Your task to perform on an android device: clear all cookies in the chrome app Image 0: 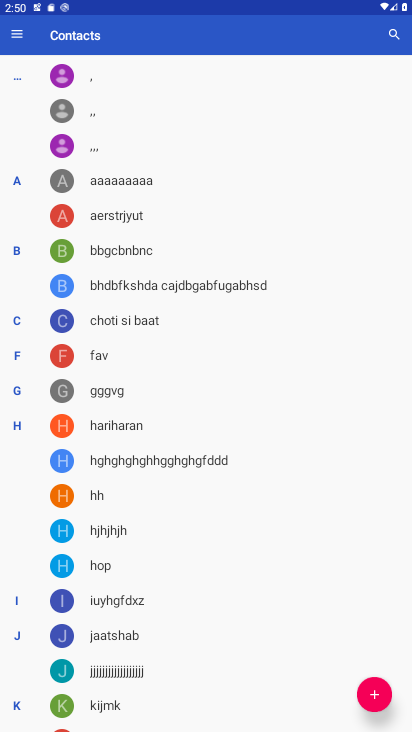
Step 0: press home button
Your task to perform on an android device: clear all cookies in the chrome app Image 1: 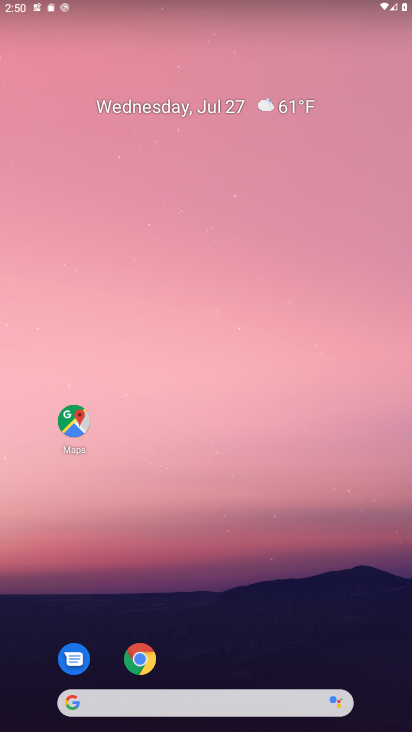
Step 1: drag from (194, 700) to (177, 153)
Your task to perform on an android device: clear all cookies in the chrome app Image 2: 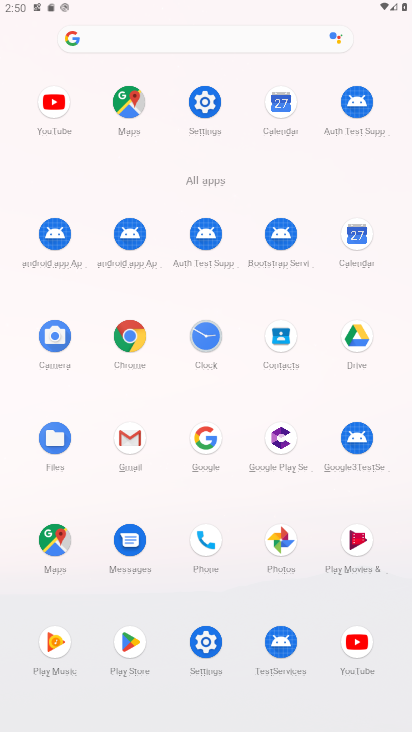
Step 2: click (133, 331)
Your task to perform on an android device: clear all cookies in the chrome app Image 3: 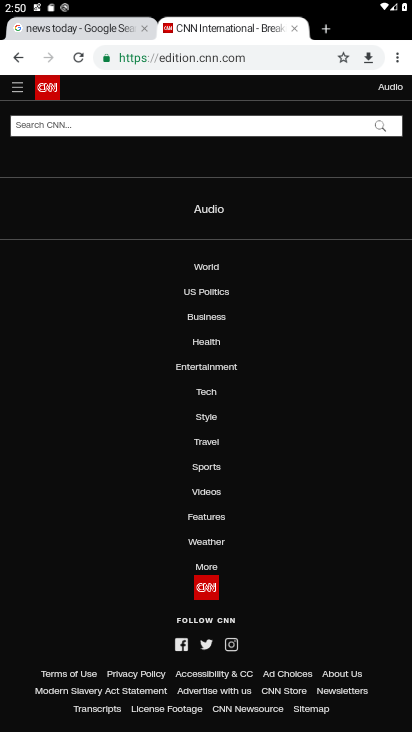
Step 3: drag from (398, 55) to (294, 386)
Your task to perform on an android device: clear all cookies in the chrome app Image 4: 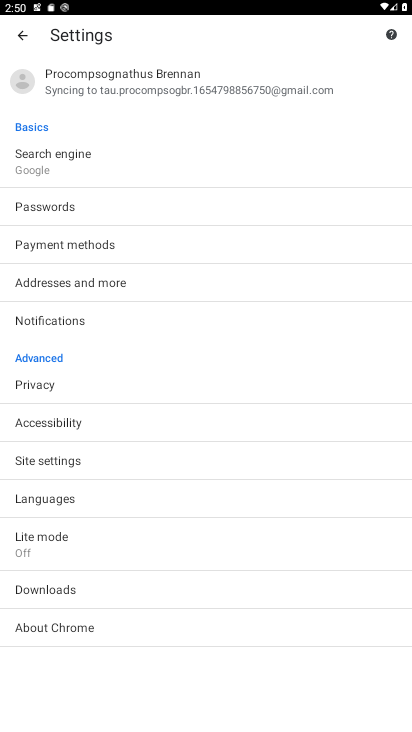
Step 4: click (40, 395)
Your task to perform on an android device: clear all cookies in the chrome app Image 5: 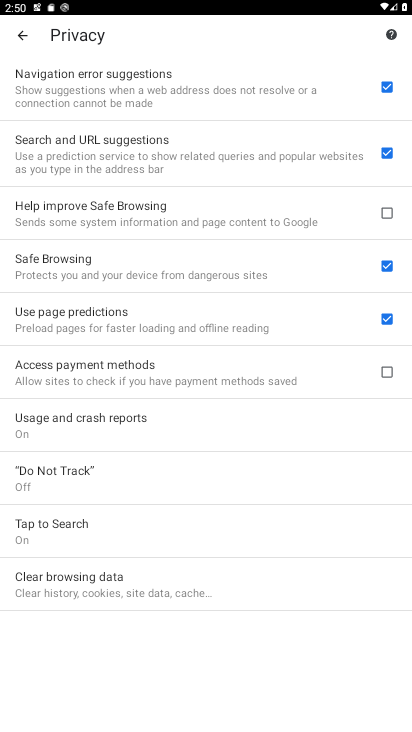
Step 5: click (124, 568)
Your task to perform on an android device: clear all cookies in the chrome app Image 6: 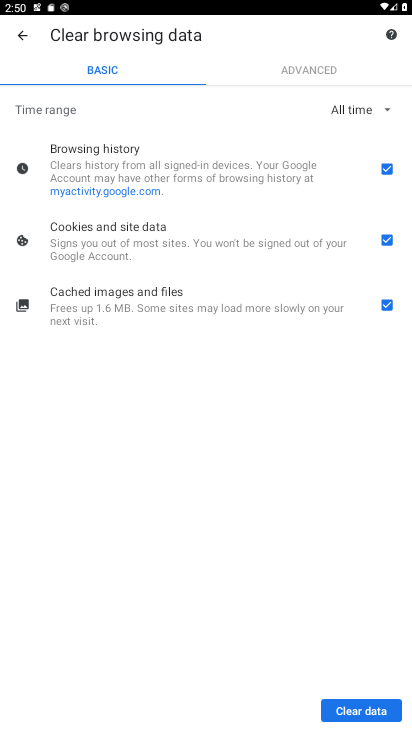
Step 6: click (387, 165)
Your task to perform on an android device: clear all cookies in the chrome app Image 7: 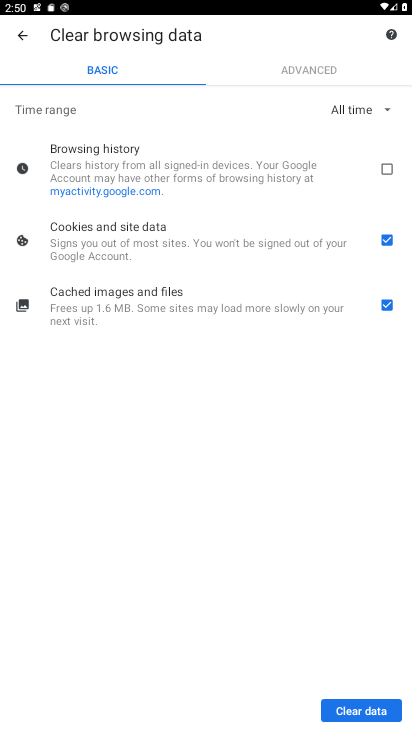
Step 7: click (388, 306)
Your task to perform on an android device: clear all cookies in the chrome app Image 8: 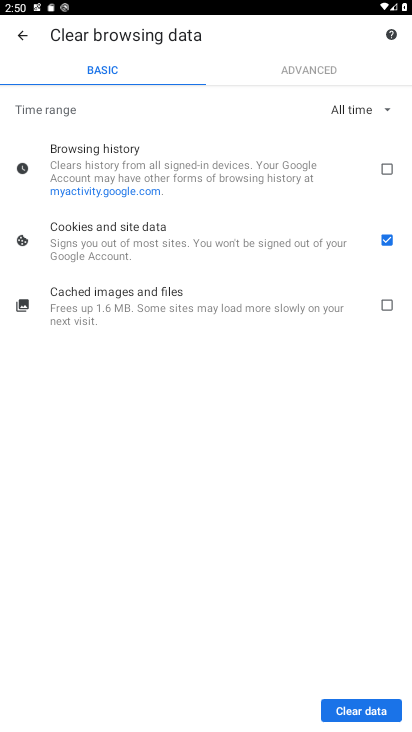
Step 8: click (370, 707)
Your task to perform on an android device: clear all cookies in the chrome app Image 9: 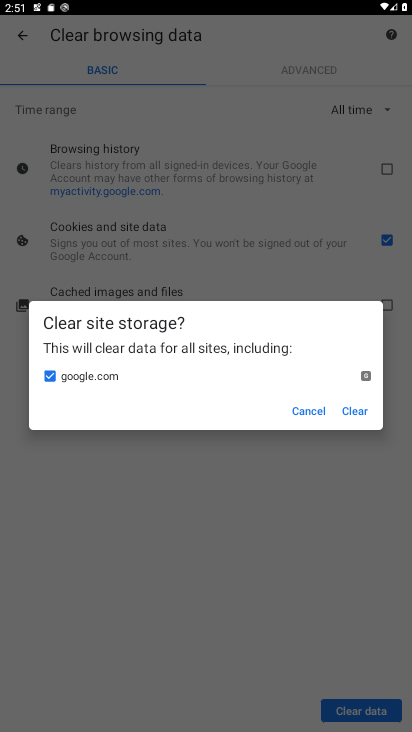
Step 9: click (351, 417)
Your task to perform on an android device: clear all cookies in the chrome app Image 10: 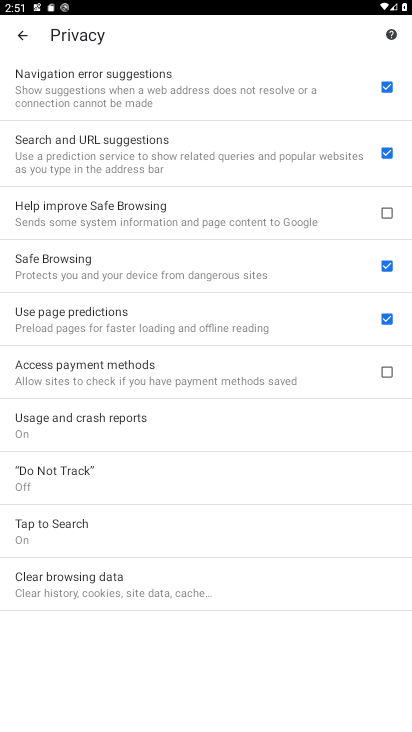
Step 10: task complete